Your task to perform on an android device: Go to eBay Image 0: 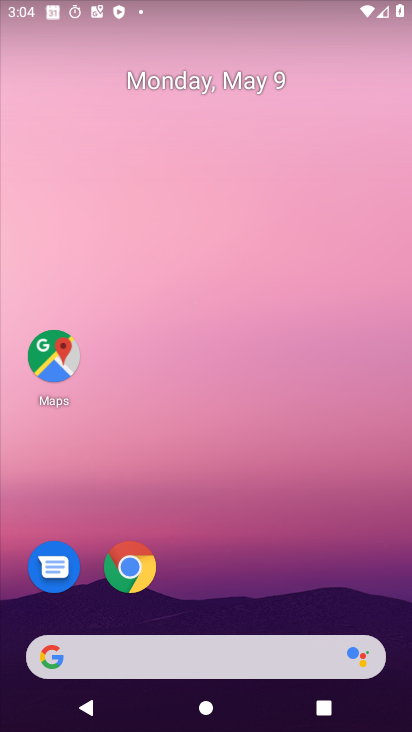
Step 0: click (127, 565)
Your task to perform on an android device: Go to eBay Image 1: 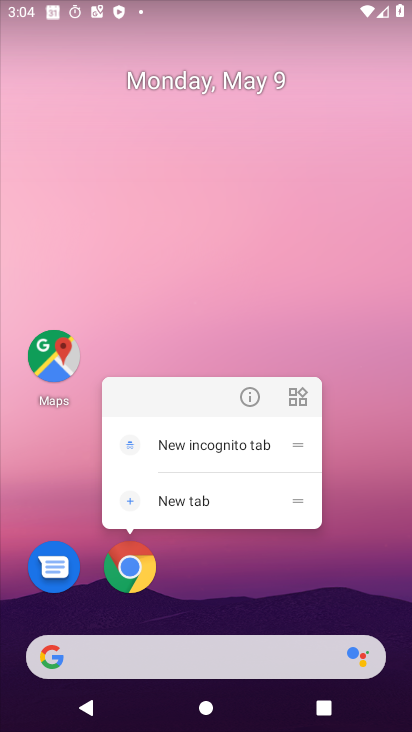
Step 1: click (132, 574)
Your task to perform on an android device: Go to eBay Image 2: 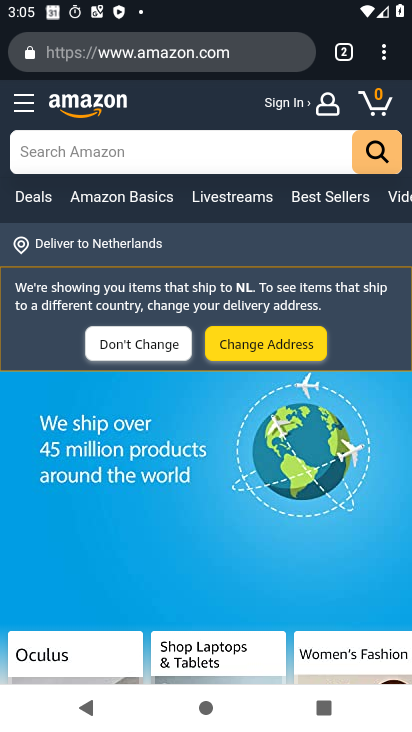
Step 2: click (345, 51)
Your task to perform on an android device: Go to eBay Image 3: 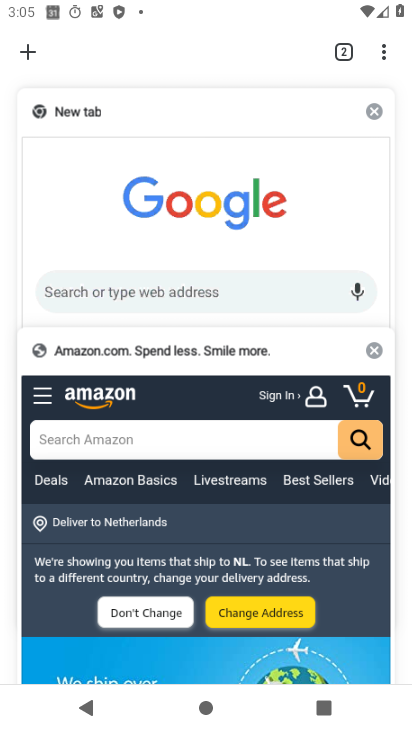
Step 3: click (30, 55)
Your task to perform on an android device: Go to eBay Image 4: 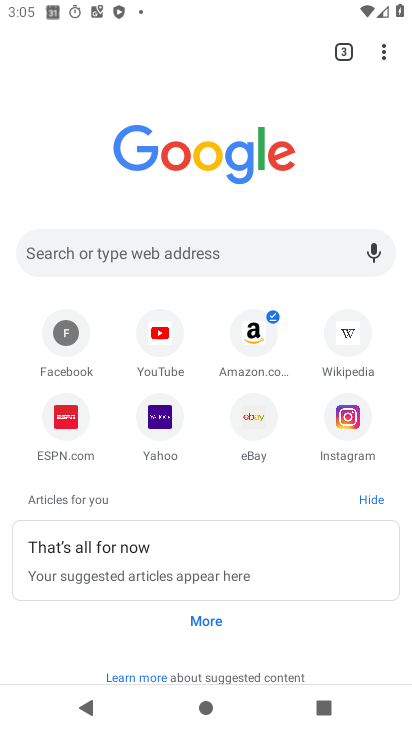
Step 4: click (255, 424)
Your task to perform on an android device: Go to eBay Image 5: 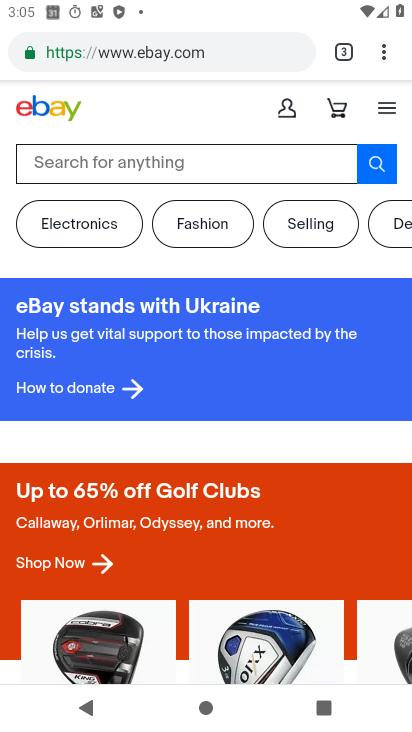
Step 5: task complete